Your task to perform on an android device: toggle airplane mode Image 0: 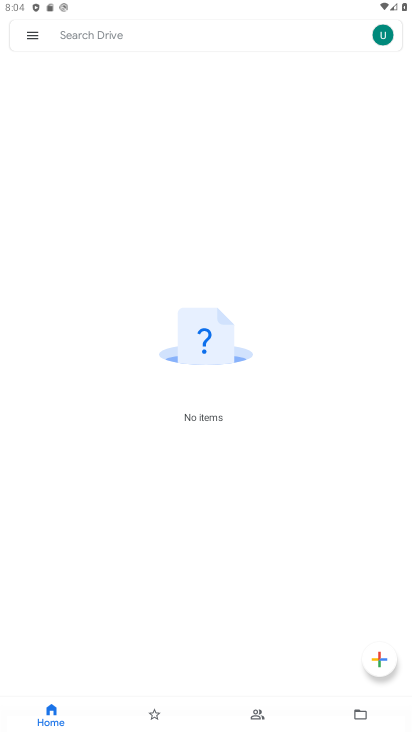
Step 0: press home button
Your task to perform on an android device: toggle airplane mode Image 1: 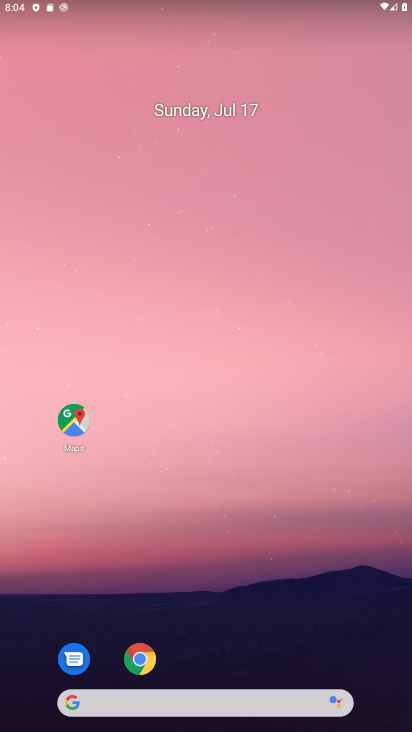
Step 1: drag from (190, 694) to (269, 213)
Your task to perform on an android device: toggle airplane mode Image 2: 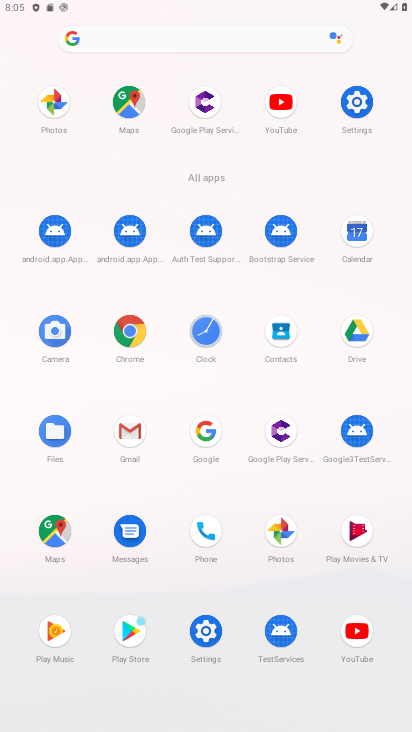
Step 2: click (357, 103)
Your task to perform on an android device: toggle airplane mode Image 3: 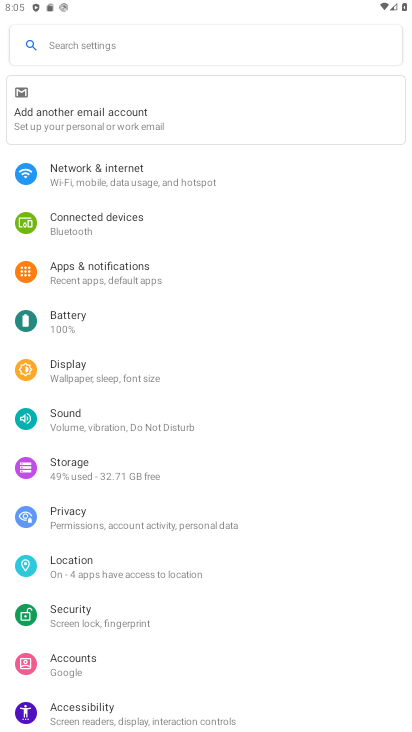
Step 3: click (96, 190)
Your task to perform on an android device: toggle airplane mode Image 4: 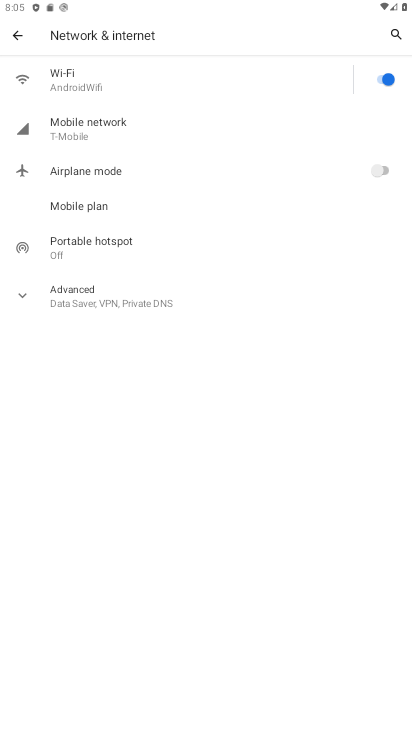
Step 4: click (373, 165)
Your task to perform on an android device: toggle airplane mode Image 5: 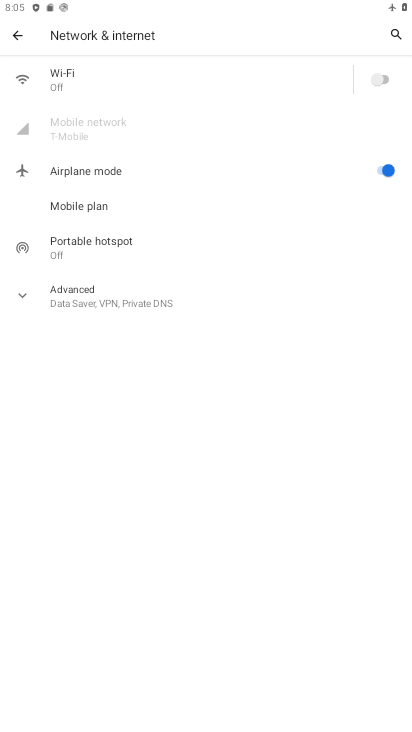
Step 5: task complete